Your task to perform on an android device: remove spam from my inbox in the gmail app Image 0: 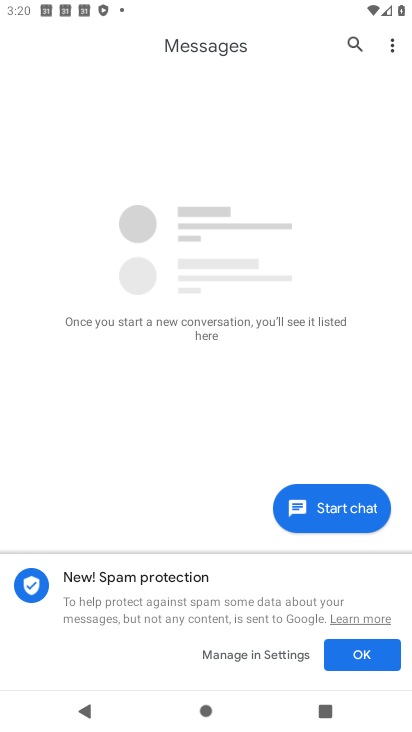
Step 0: task complete